Your task to perform on an android device: move an email to a new category in the gmail app Image 0: 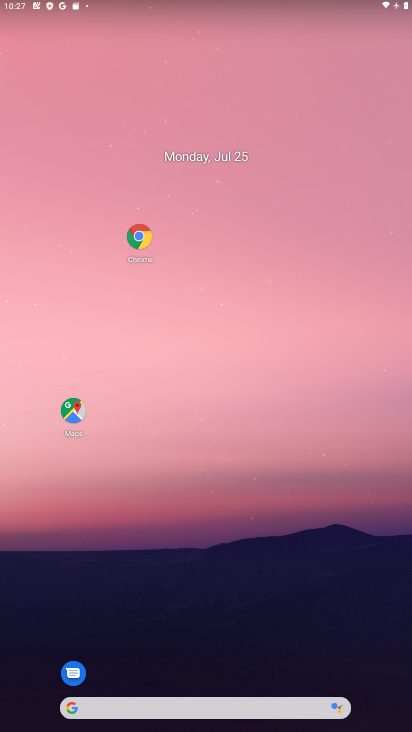
Step 0: drag from (275, 641) to (338, 318)
Your task to perform on an android device: move an email to a new category in the gmail app Image 1: 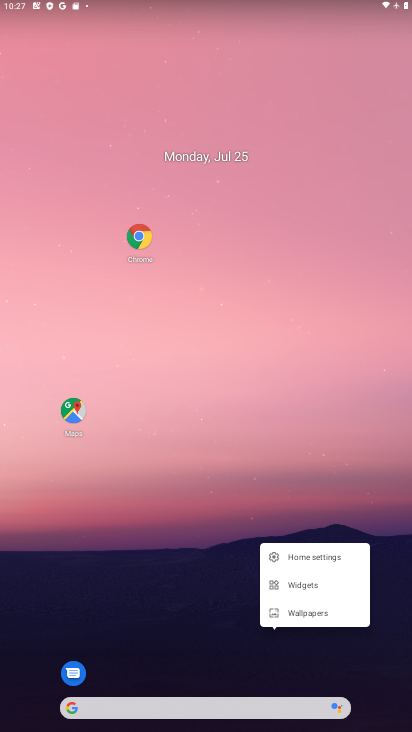
Step 1: drag from (196, 651) to (219, 138)
Your task to perform on an android device: move an email to a new category in the gmail app Image 2: 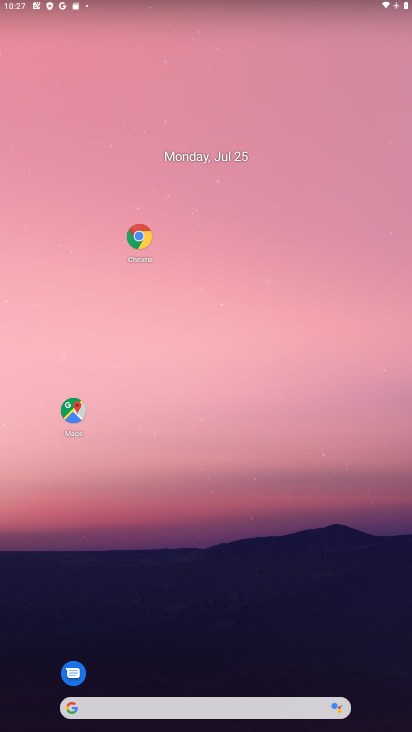
Step 2: drag from (242, 669) to (301, 88)
Your task to perform on an android device: move an email to a new category in the gmail app Image 3: 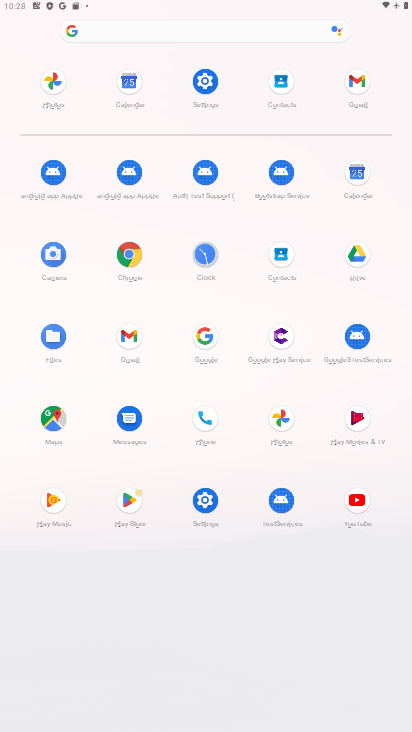
Step 3: click (350, 91)
Your task to perform on an android device: move an email to a new category in the gmail app Image 4: 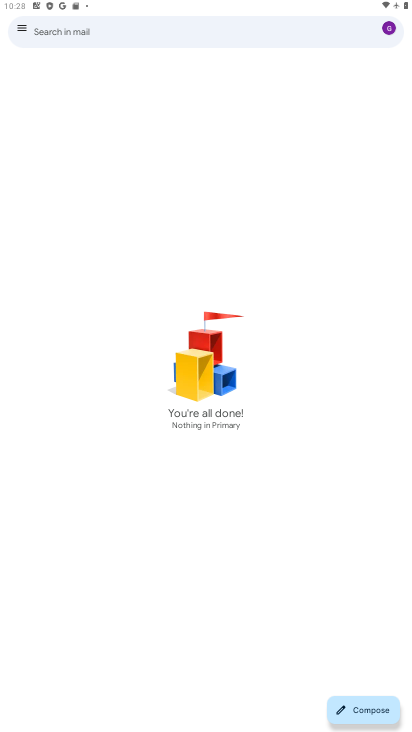
Step 4: task complete